Your task to perform on an android device: Show me productivity apps on the Play Store Image 0: 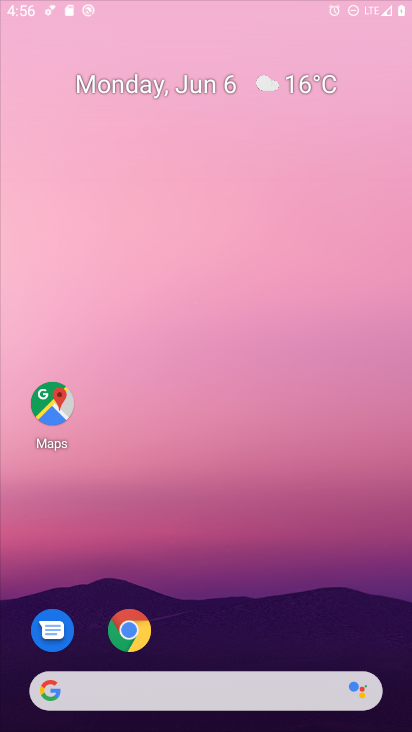
Step 0: click (216, 37)
Your task to perform on an android device: Show me productivity apps on the Play Store Image 1: 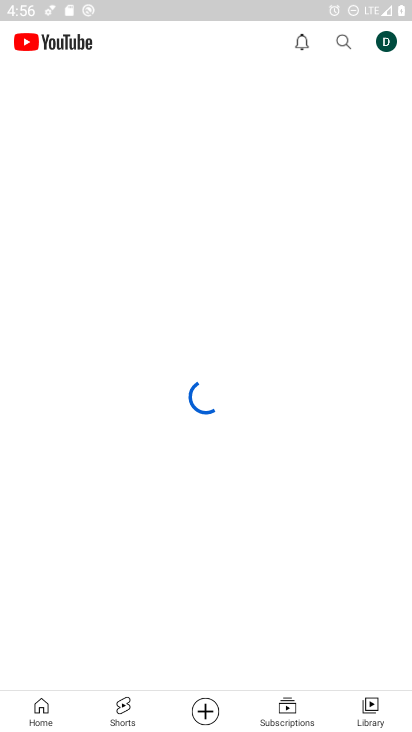
Step 1: press home button
Your task to perform on an android device: Show me productivity apps on the Play Store Image 2: 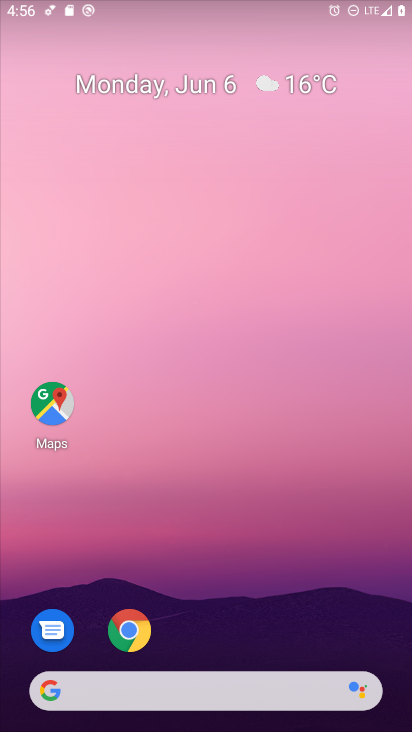
Step 2: drag from (227, 567) to (229, 75)
Your task to perform on an android device: Show me productivity apps on the Play Store Image 3: 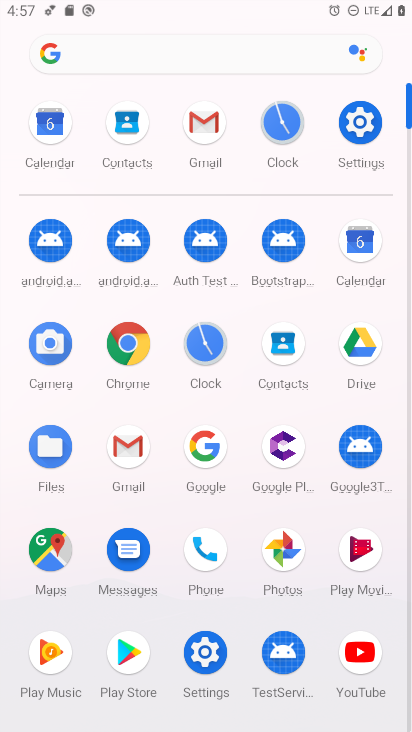
Step 3: click (117, 648)
Your task to perform on an android device: Show me productivity apps on the Play Store Image 4: 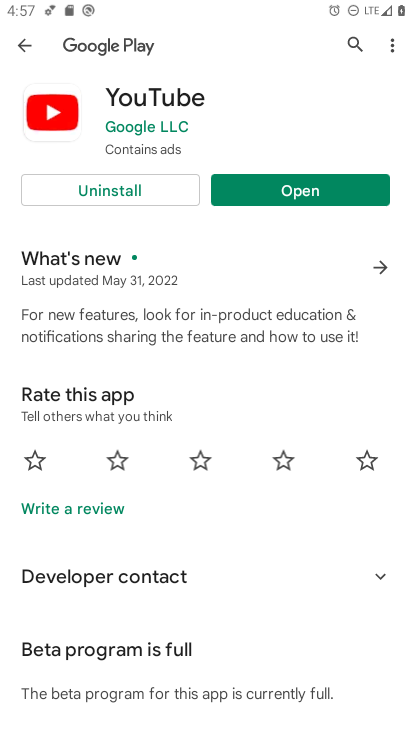
Step 4: click (22, 47)
Your task to perform on an android device: Show me productivity apps on the Play Store Image 5: 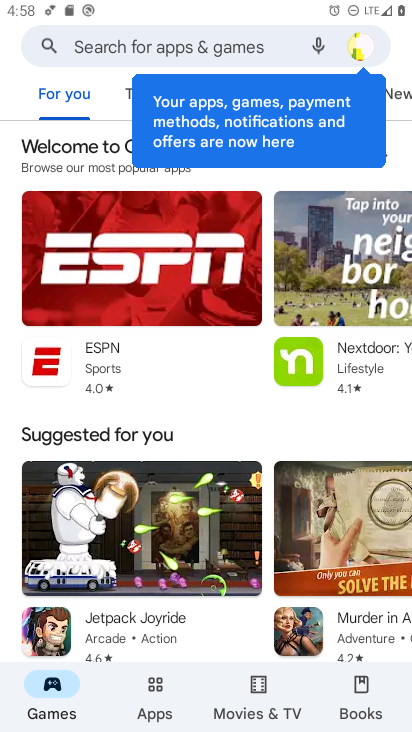
Step 5: click (159, 713)
Your task to perform on an android device: Show me productivity apps on the Play Store Image 6: 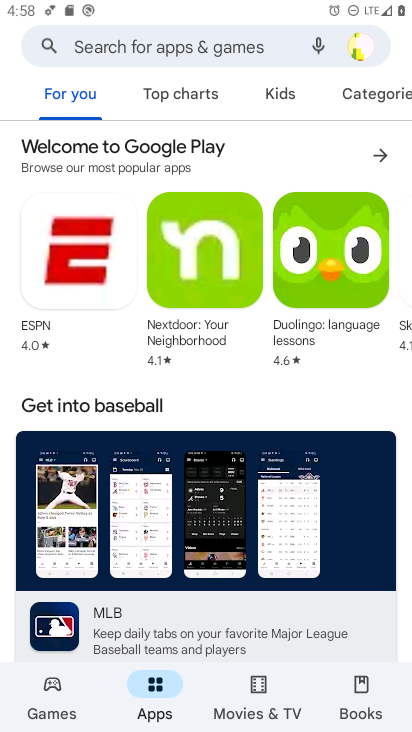
Step 6: click (220, 44)
Your task to perform on an android device: Show me productivity apps on the Play Store Image 7: 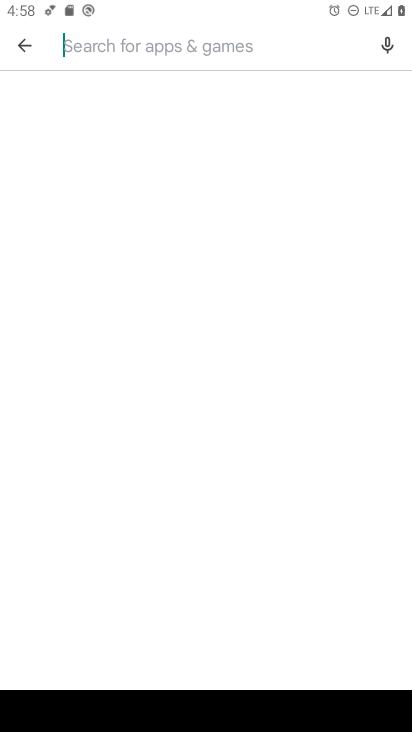
Step 7: type "productivity apps"
Your task to perform on an android device: Show me productivity apps on the Play Store Image 8: 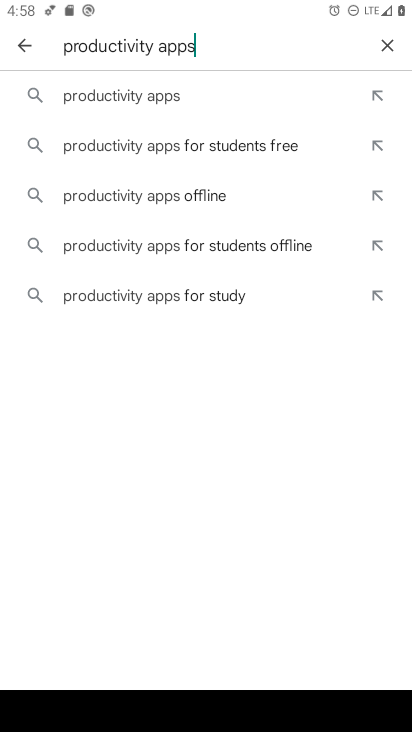
Step 8: click (149, 90)
Your task to perform on an android device: Show me productivity apps on the Play Store Image 9: 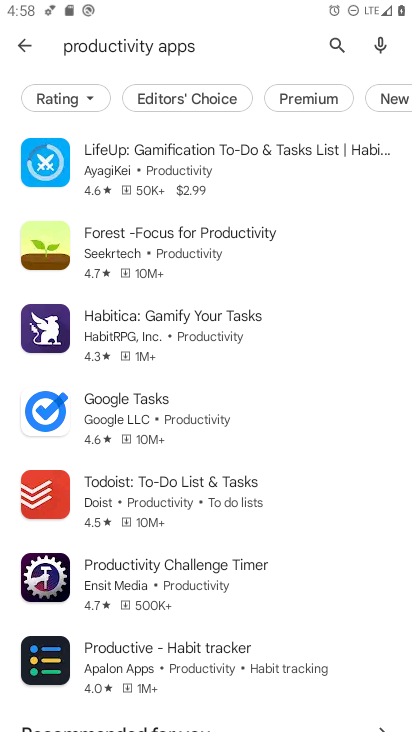
Step 9: task complete